Your task to perform on an android device: Do I have any events this weekend? Image 0: 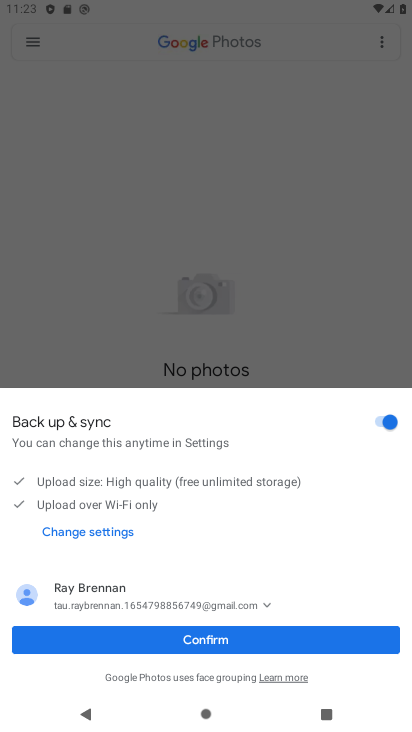
Step 0: press home button
Your task to perform on an android device: Do I have any events this weekend? Image 1: 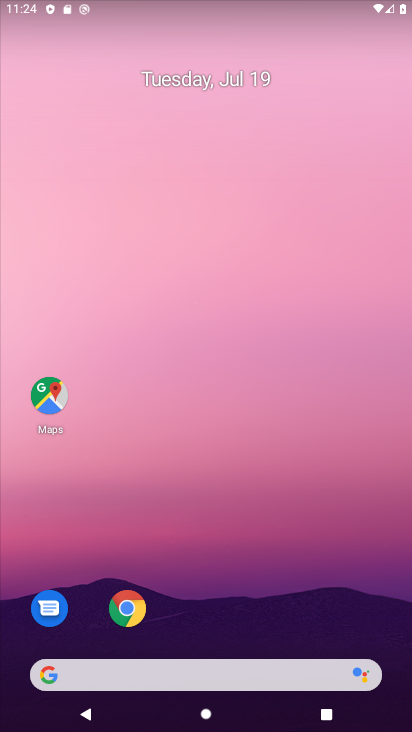
Step 1: press home button
Your task to perform on an android device: Do I have any events this weekend? Image 2: 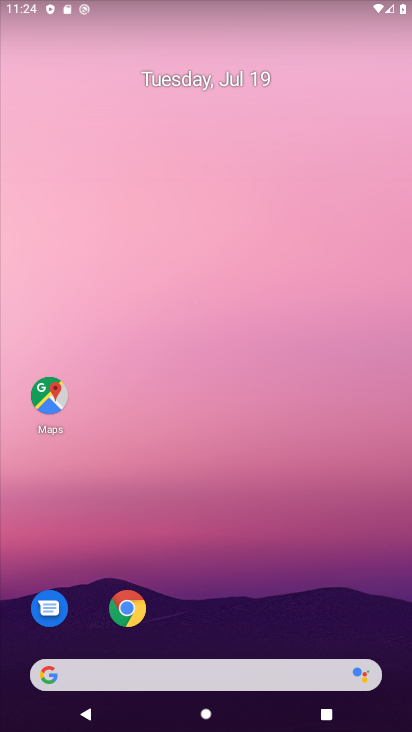
Step 2: drag from (264, 617) to (211, 51)
Your task to perform on an android device: Do I have any events this weekend? Image 3: 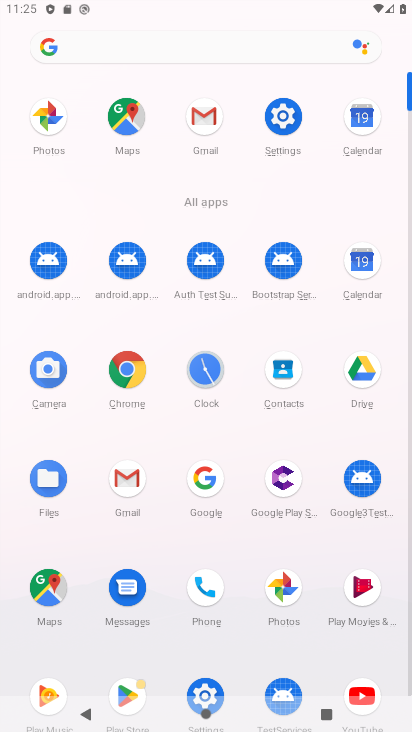
Step 3: press home button
Your task to perform on an android device: Do I have any events this weekend? Image 4: 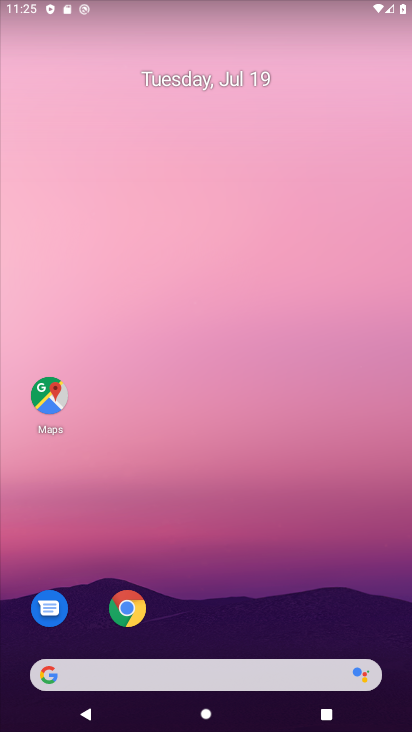
Step 4: press home button
Your task to perform on an android device: Do I have any events this weekend? Image 5: 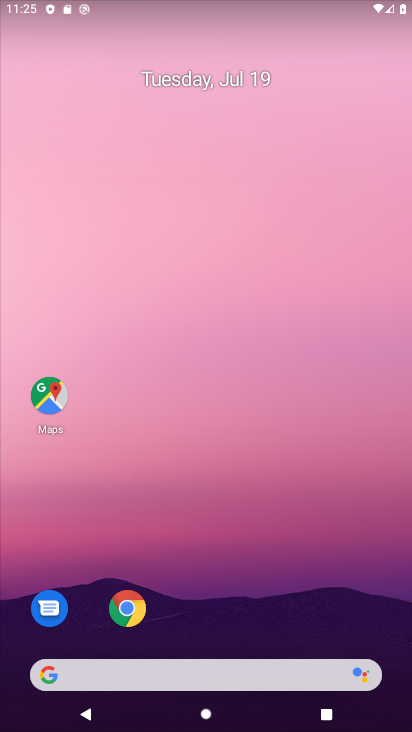
Step 5: drag from (277, 576) to (268, 77)
Your task to perform on an android device: Do I have any events this weekend? Image 6: 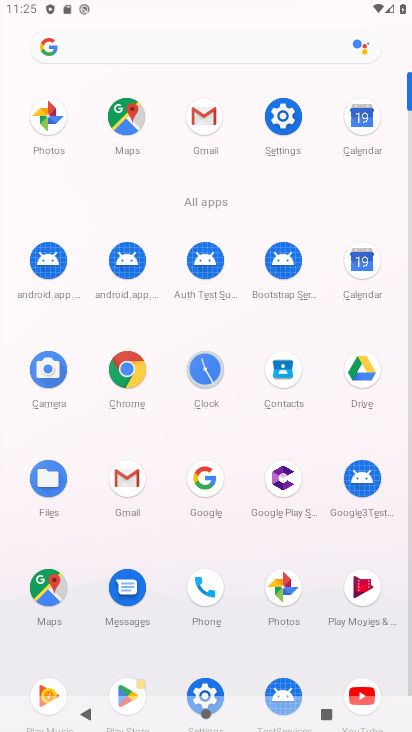
Step 6: click (364, 254)
Your task to perform on an android device: Do I have any events this weekend? Image 7: 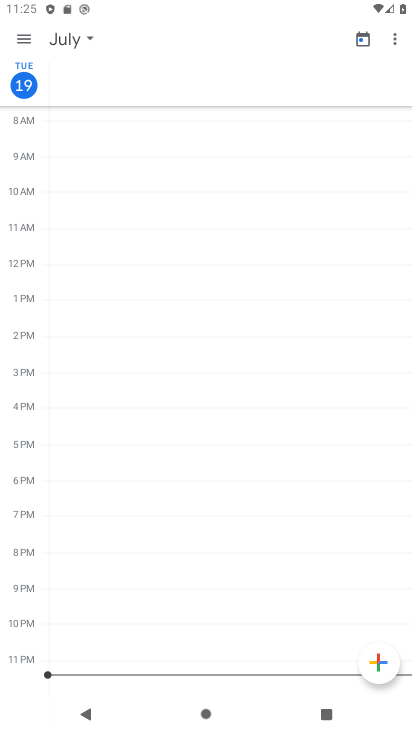
Step 7: click (29, 32)
Your task to perform on an android device: Do I have any events this weekend? Image 8: 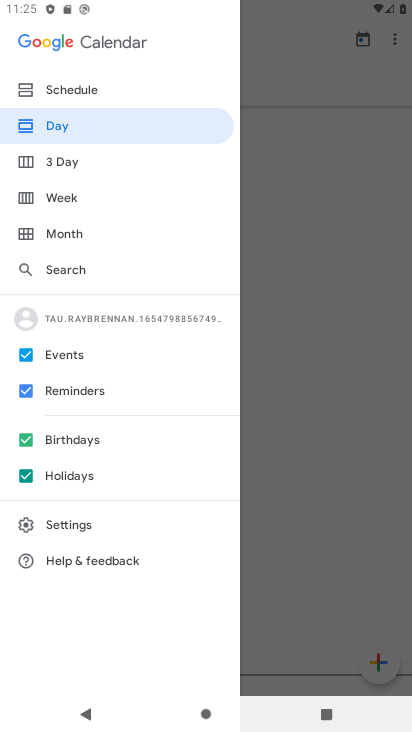
Step 8: click (70, 197)
Your task to perform on an android device: Do I have any events this weekend? Image 9: 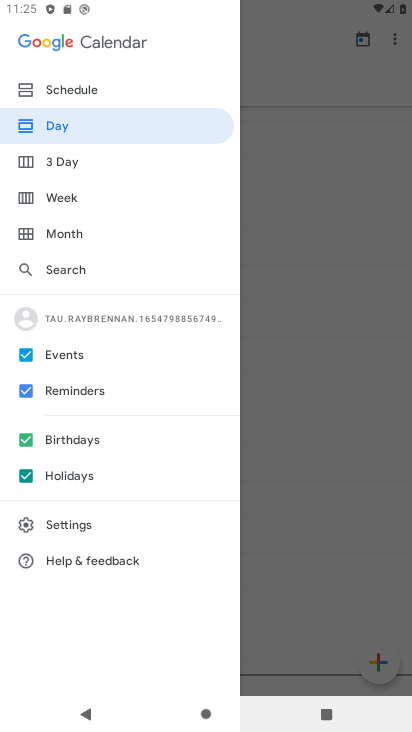
Step 9: click (56, 198)
Your task to perform on an android device: Do I have any events this weekend? Image 10: 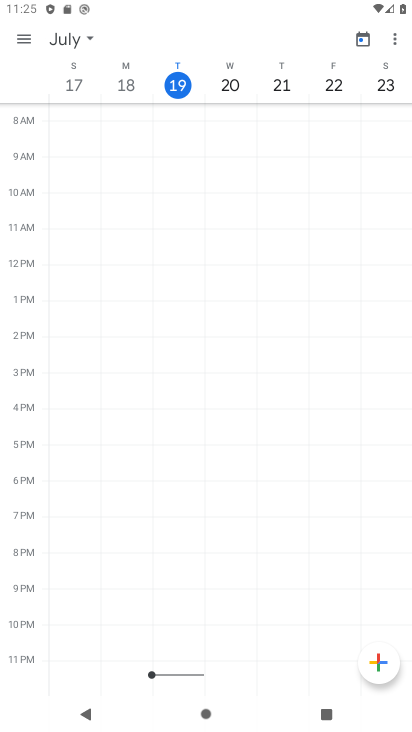
Step 10: task complete